Your task to perform on an android device: Open Android settings Image 0: 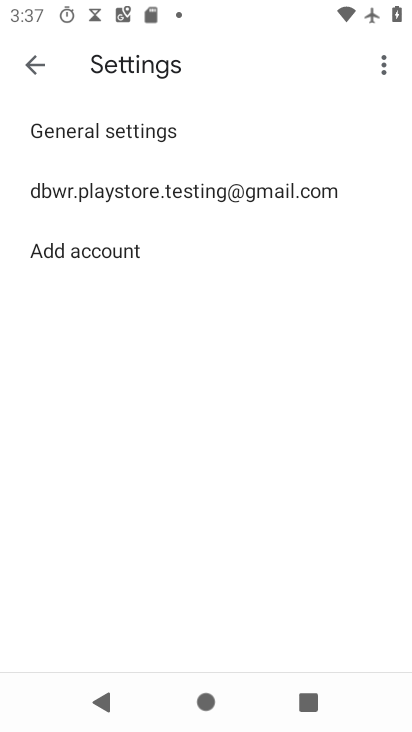
Step 0: press home button
Your task to perform on an android device: Open Android settings Image 1: 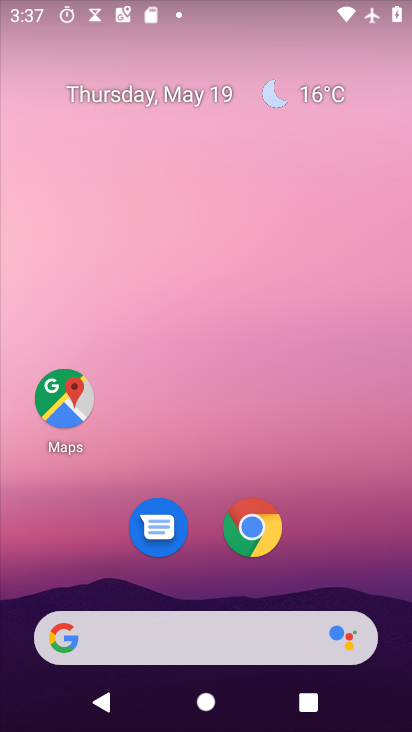
Step 1: drag from (344, 559) to (259, 105)
Your task to perform on an android device: Open Android settings Image 2: 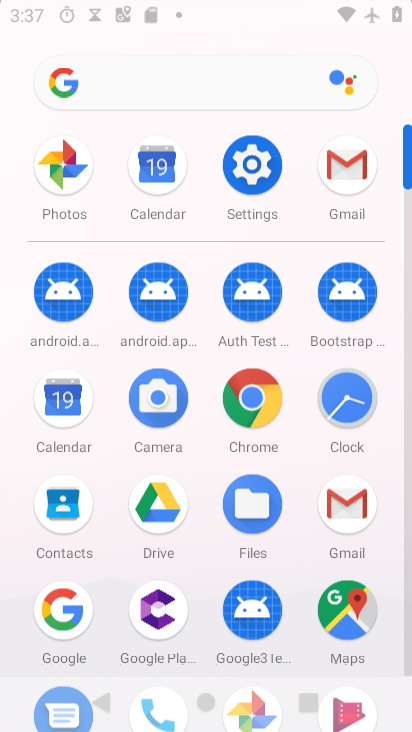
Step 2: drag from (352, 471) to (278, 10)
Your task to perform on an android device: Open Android settings Image 3: 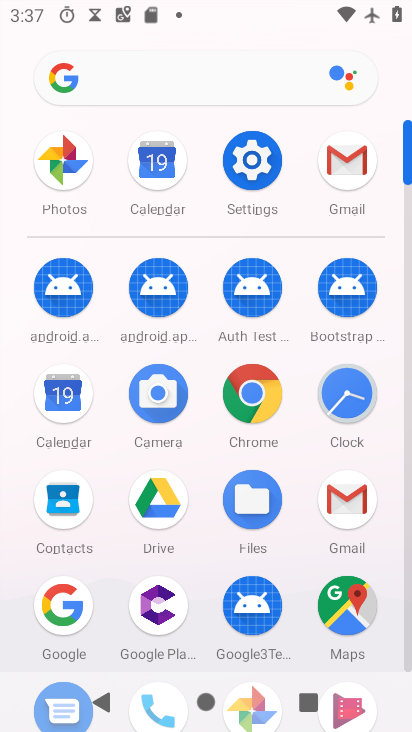
Step 3: click (245, 151)
Your task to perform on an android device: Open Android settings Image 4: 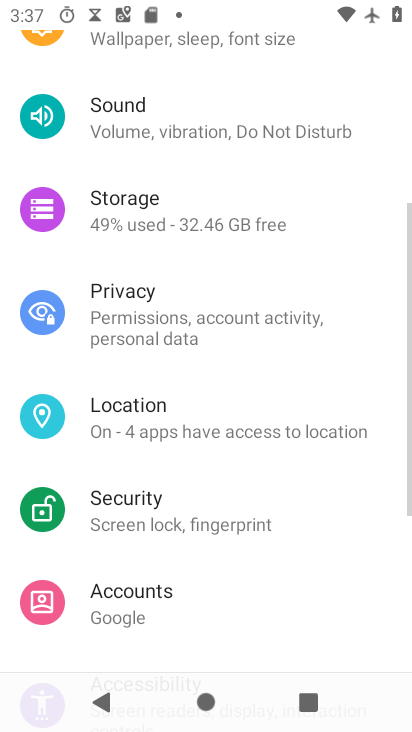
Step 4: drag from (264, 595) to (270, 238)
Your task to perform on an android device: Open Android settings Image 5: 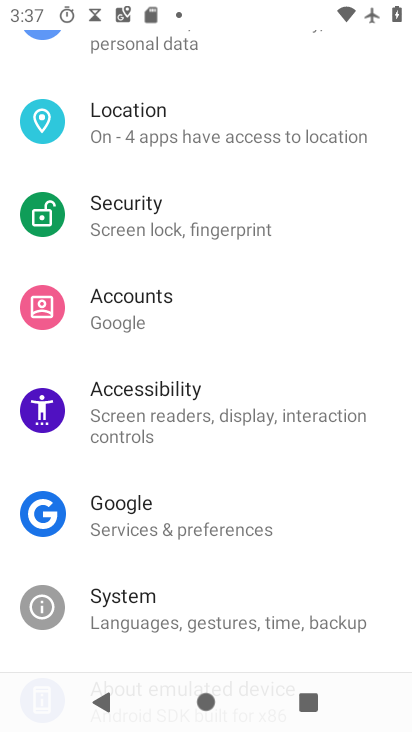
Step 5: drag from (233, 590) to (225, 282)
Your task to perform on an android device: Open Android settings Image 6: 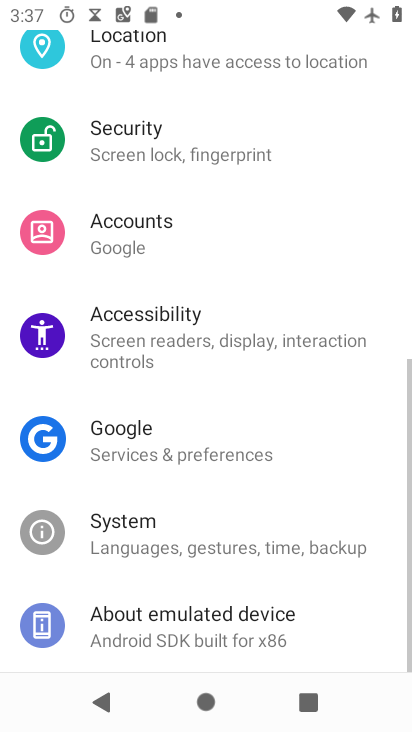
Step 6: click (170, 609)
Your task to perform on an android device: Open Android settings Image 7: 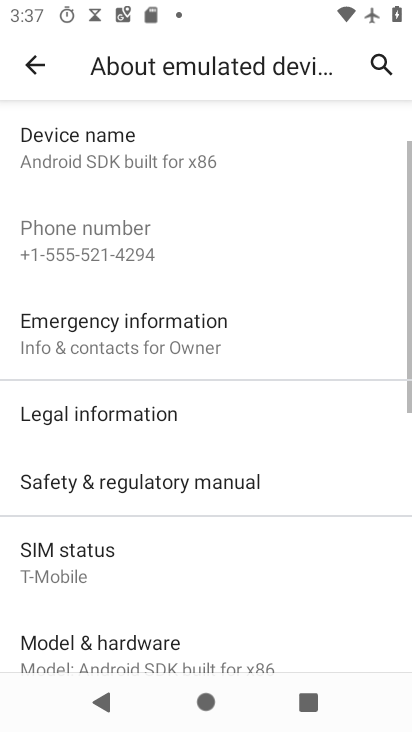
Step 7: drag from (276, 461) to (245, 116)
Your task to perform on an android device: Open Android settings Image 8: 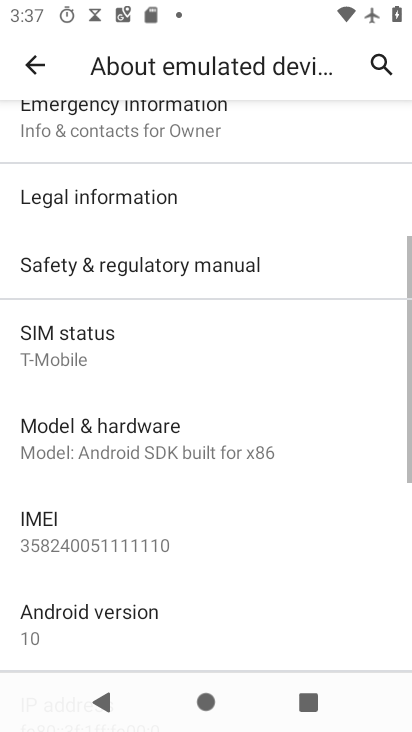
Step 8: click (170, 613)
Your task to perform on an android device: Open Android settings Image 9: 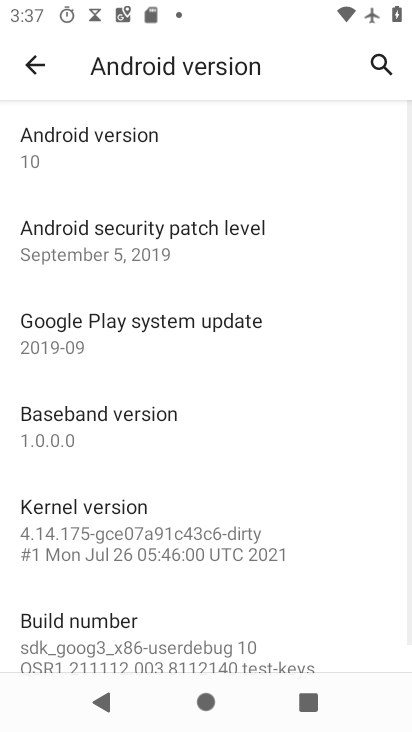
Step 9: task complete